Your task to perform on an android device: turn on javascript in the chrome app Image 0: 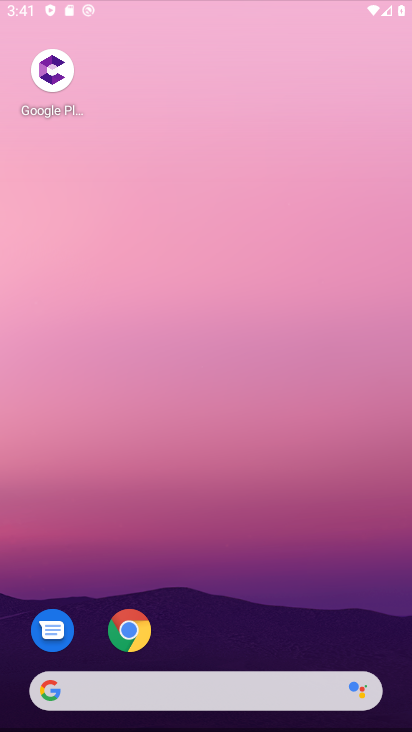
Step 0: drag from (284, 672) to (164, 83)
Your task to perform on an android device: turn on javascript in the chrome app Image 1: 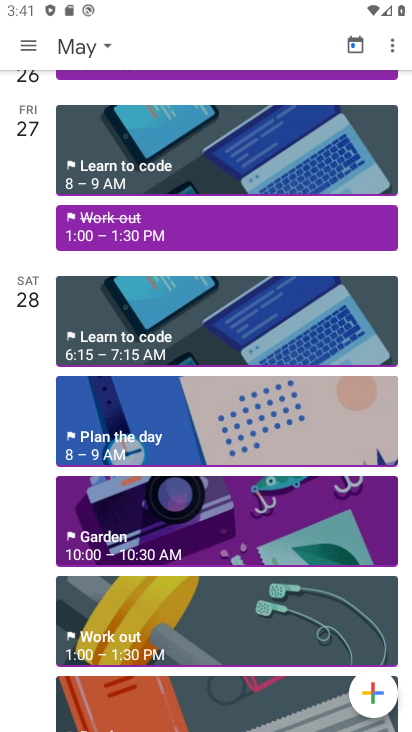
Step 1: press back button
Your task to perform on an android device: turn on javascript in the chrome app Image 2: 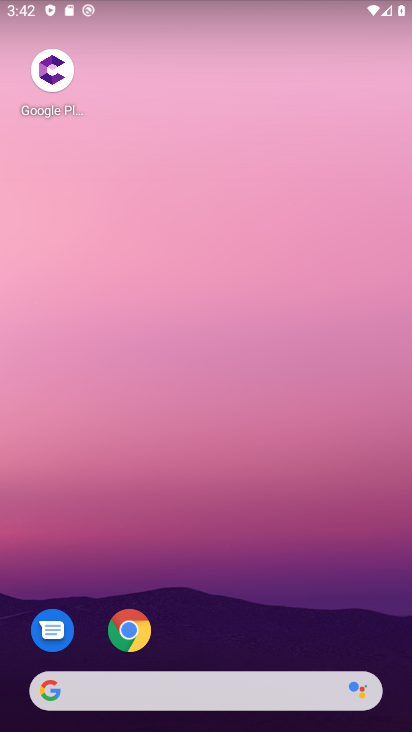
Step 2: drag from (272, 727) to (230, 146)
Your task to perform on an android device: turn on javascript in the chrome app Image 3: 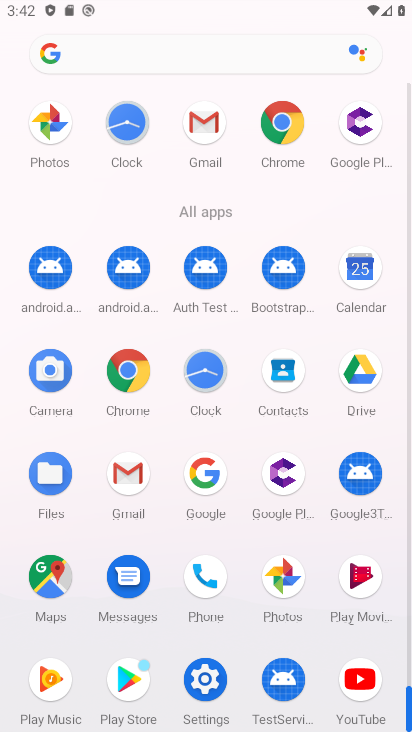
Step 3: click (280, 125)
Your task to perform on an android device: turn on javascript in the chrome app Image 4: 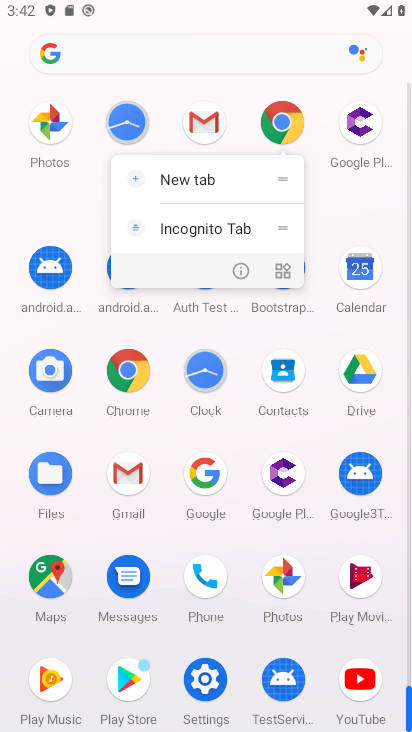
Step 4: click (190, 179)
Your task to perform on an android device: turn on javascript in the chrome app Image 5: 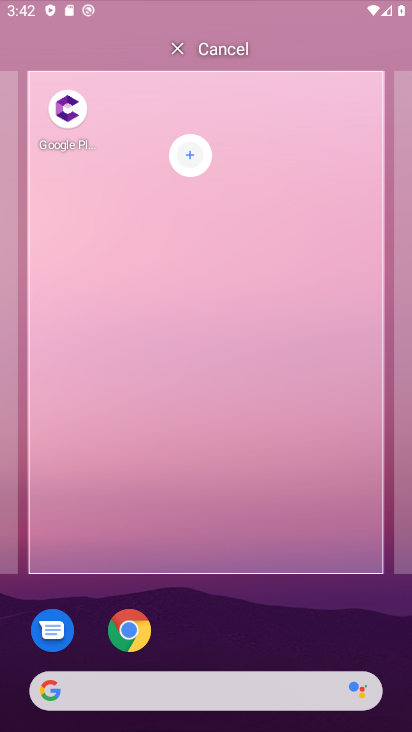
Step 5: click (190, 179)
Your task to perform on an android device: turn on javascript in the chrome app Image 6: 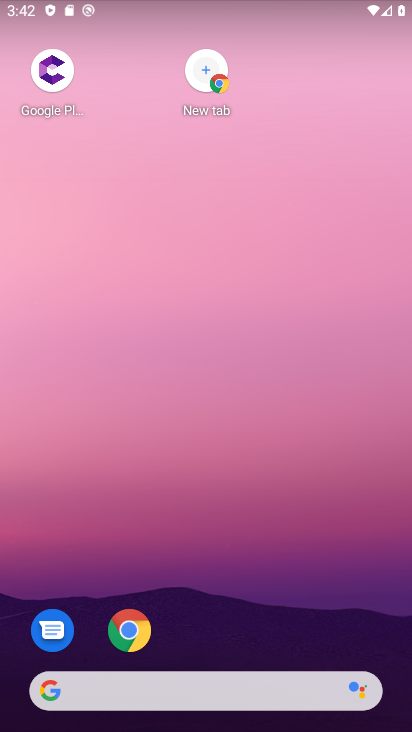
Step 6: drag from (270, 582) to (152, 4)
Your task to perform on an android device: turn on javascript in the chrome app Image 7: 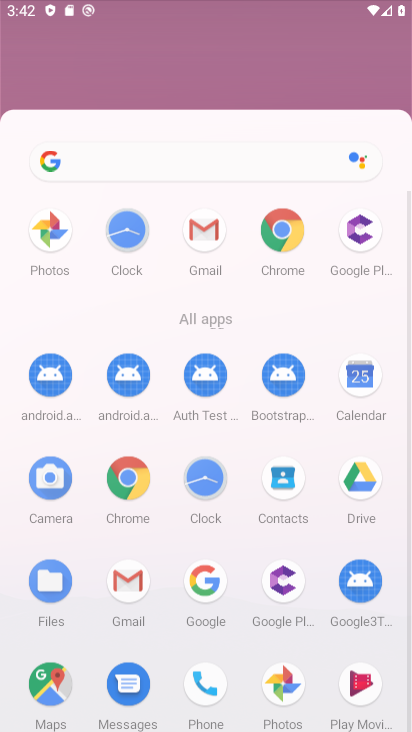
Step 7: drag from (252, 462) to (275, 109)
Your task to perform on an android device: turn on javascript in the chrome app Image 8: 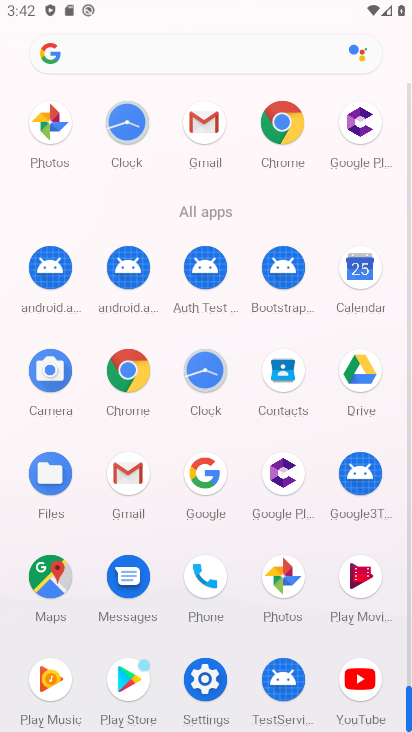
Step 8: click (286, 128)
Your task to perform on an android device: turn on javascript in the chrome app Image 9: 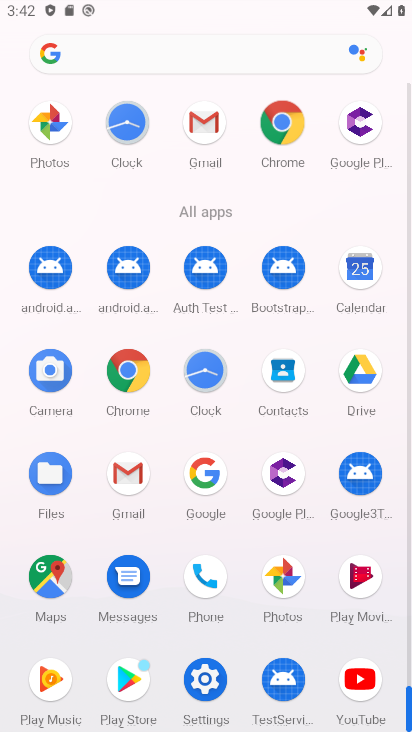
Step 9: click (286, 128)
Your task to perform on an android device: turn on javascript in the chrome app Image 10: 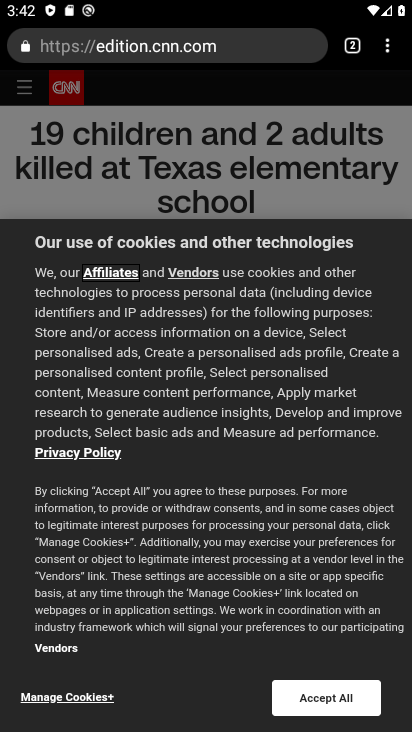
Step 10: drag from (384, 51) to (222, 92)
Your task to perform on an android device: turn on javascript in the chrome app Image 11: 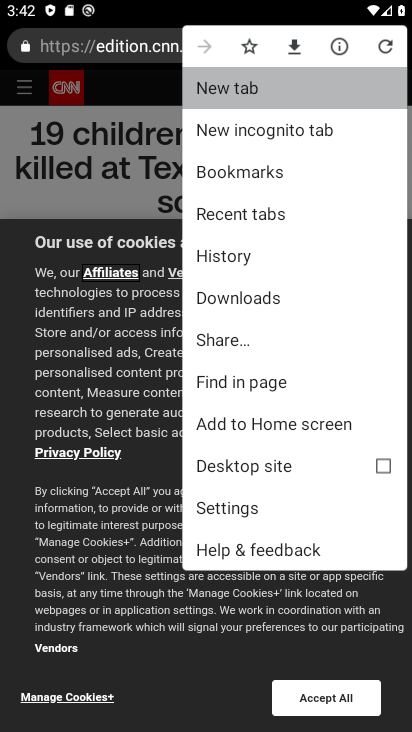
Step 11: click (221, 92)
Your task to perform on an android device: turn on javascript in the chrome app Image 12: 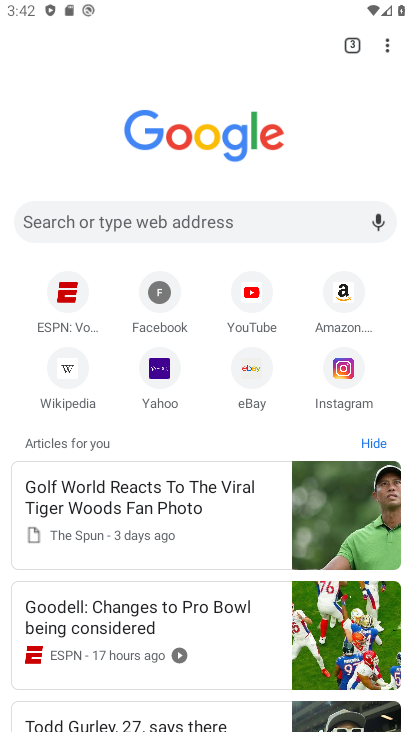
Step 12: drag from (382, 34) to (225, 376)
Your task to perform on an android device: turn on javascript in the chrome app Image 13: 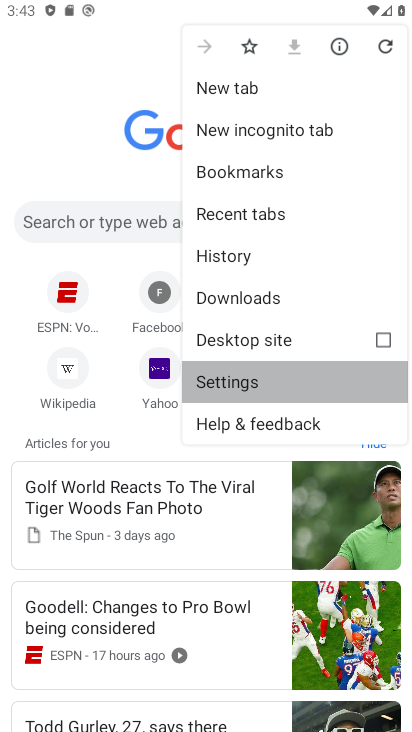
Step 13: click (226, 377)
Your task to perform on an android device: turn on javascript in the chrome app Image 14: 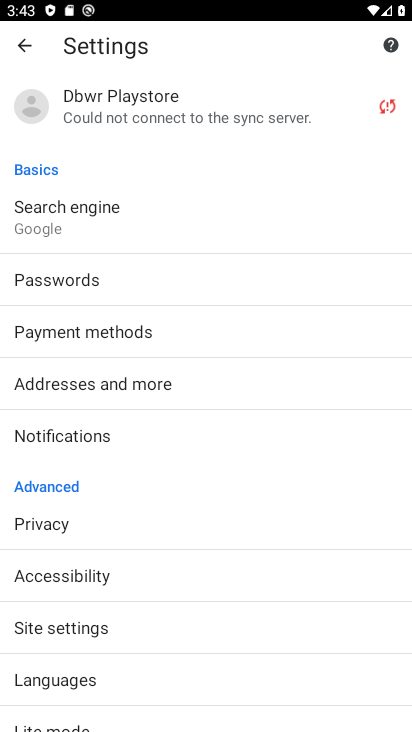
Step 14: drag from (80, 625) to (96, 166)
Your task to perform on an android device: turn on javascript in the chrome app Image 15: 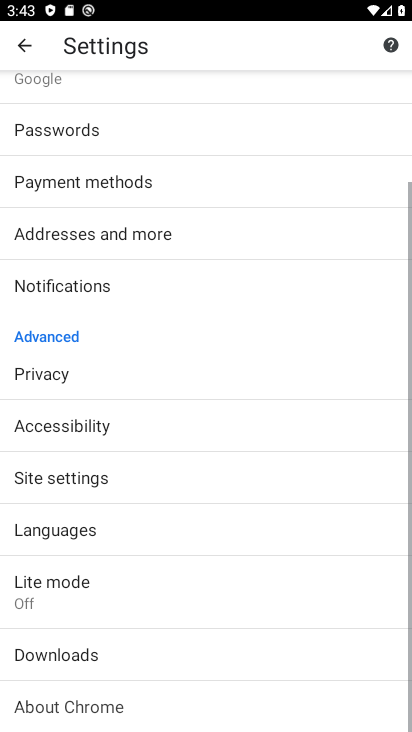
Step 15: drag from (151, 506) to (145, 172)
Your task to perform on an android device: turn on javascript in the chrome app Image 16: 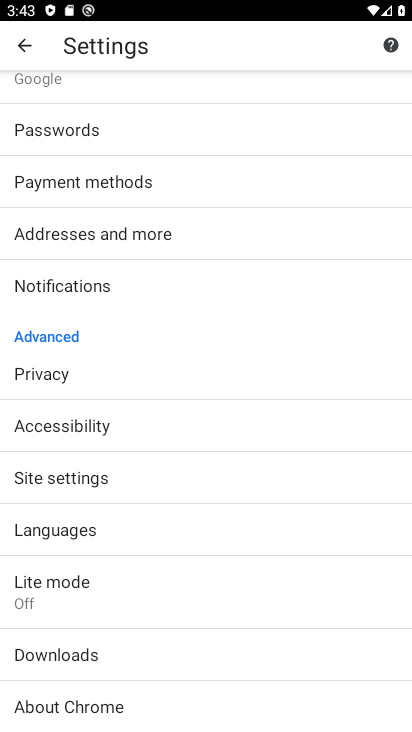
Step 16: click (58, 472)
Your task to perform on an android device: turn on javascript in the chrome app Image 17: 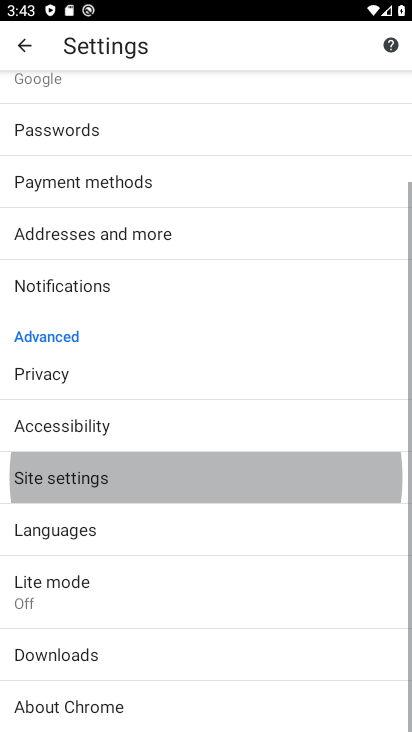
Step 17: click (59, 473)
Your task to perform on an android device: turn on javascript in the chrome app Image 18: 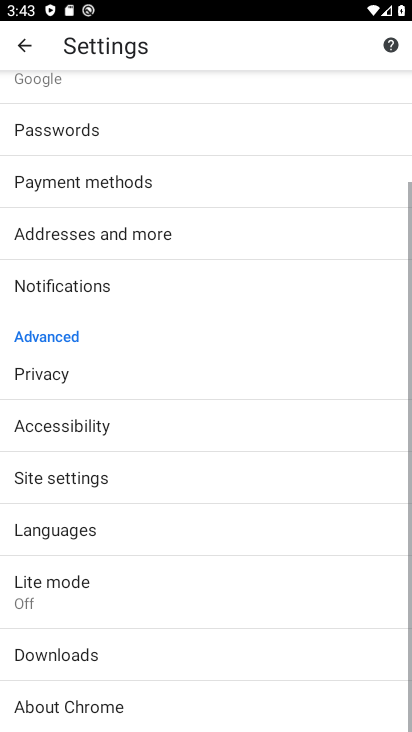
Step 18: click (63, 470)
Your task to perform on an android device: turn on javascript in the chrome app Image 19: 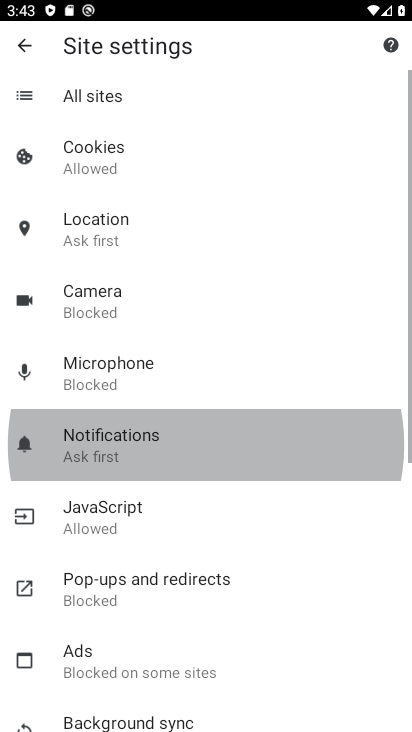
Step 19: click (68, 472)
Your task to perform on an android device: turn on javascript in the chrome app Image 20: 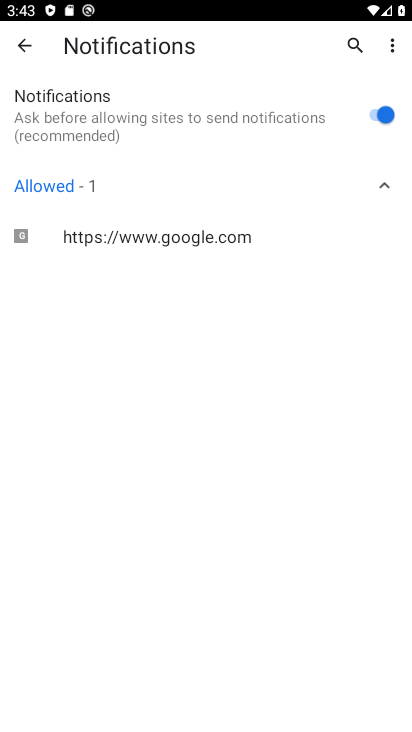
Step 20: click (18, 43)
Your task to perform on an android device: turn on javascript in the chrome app Image 21: 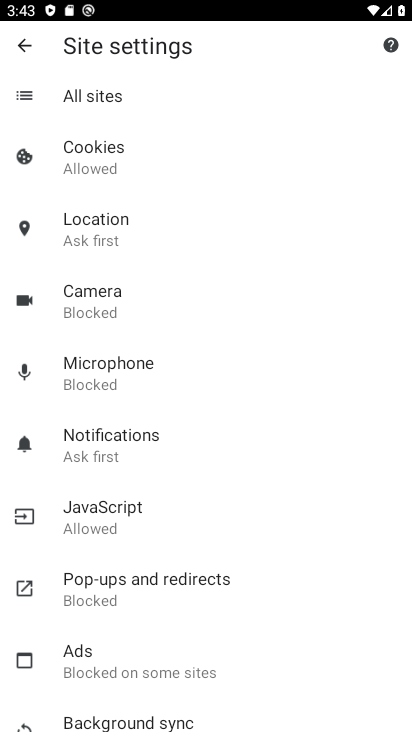
Step 21: click (99, 506)
Your task to perform on an android device: turn on javascript in the chrome app Image 22: 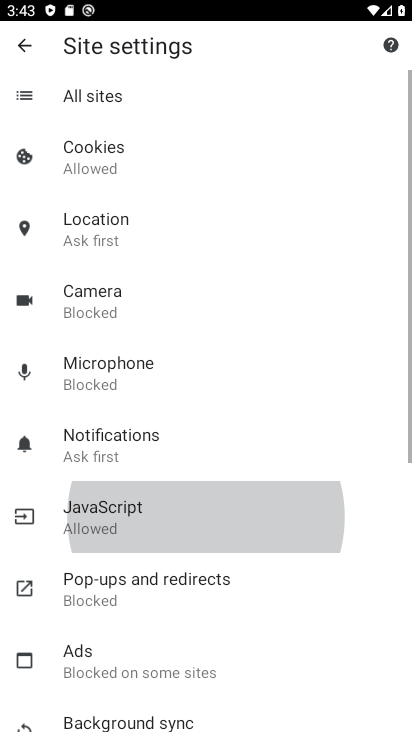
Step 22: click (99, 506)
Your task to perform on an android device: turn on javascript in the chrome app Image 23: 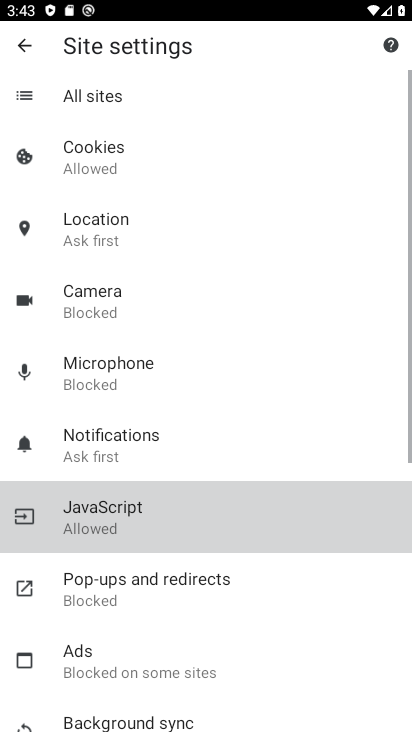
Step 23: click (99, 506)
Your task to perform on an android device: turn on javascript in the chrome app Image 24: 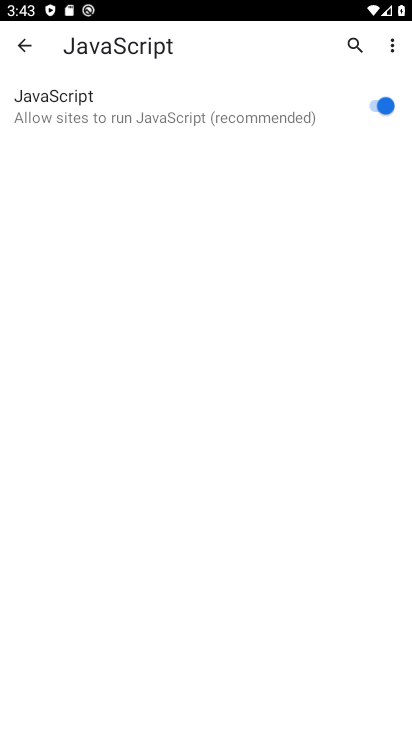
Step 24: click (99, 506)
Your task to perform on an android device: turn on javascript in the chrome app Image 25: 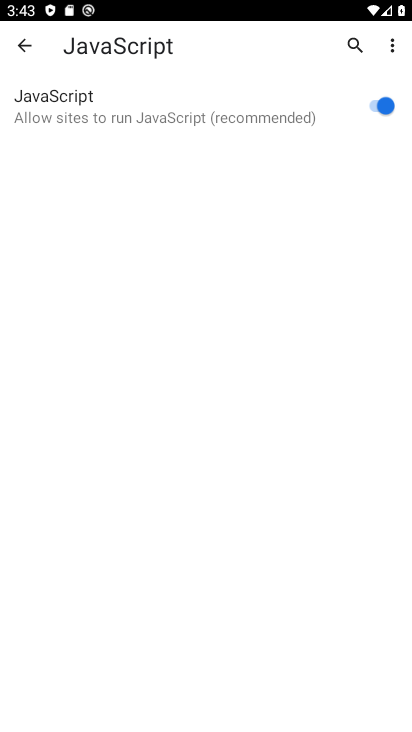
Step 25: task complete